Your task to perform on an android device: change the clock style Image 0: 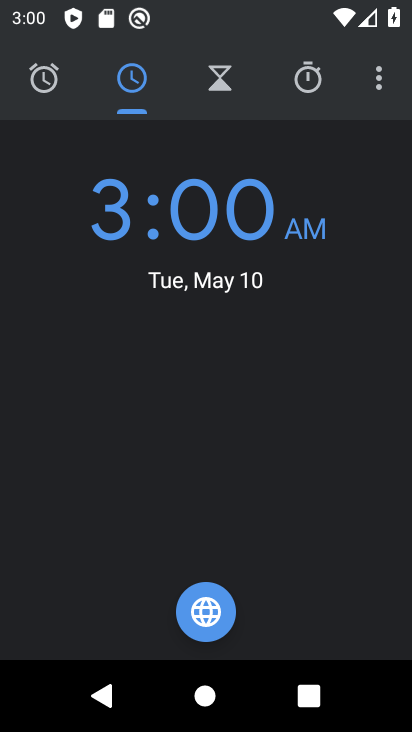
Step 0: click (380, 79)
Your task to perform on an android device: change the clock style Image 1: 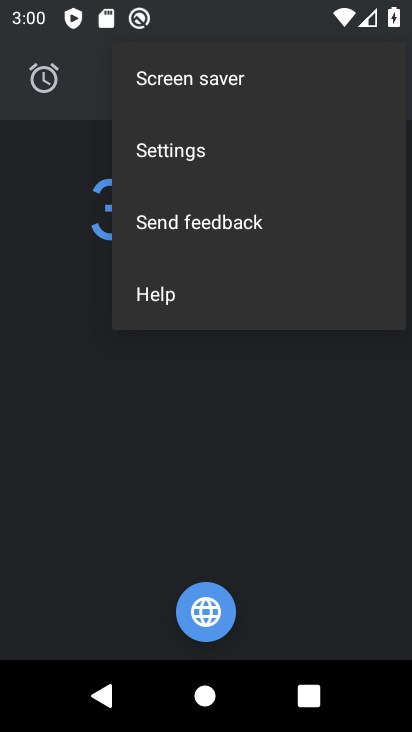
Step 1: click (182, 153)
Your task to perform on an android device: change the clock style Image 2: 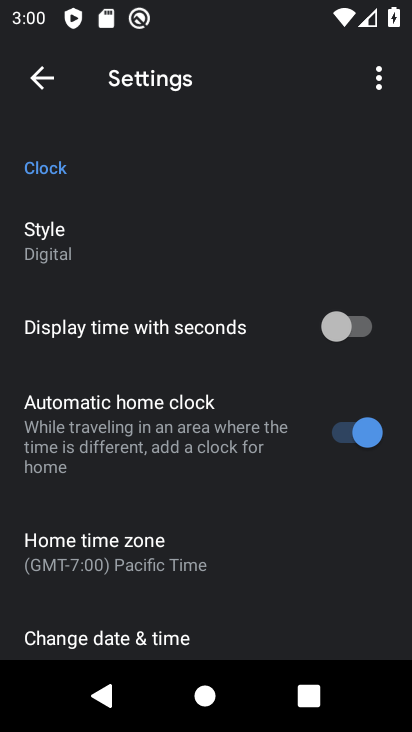
Step 2: click (45, 236)
Your task to perform on an android device: change the clock style Image 3: 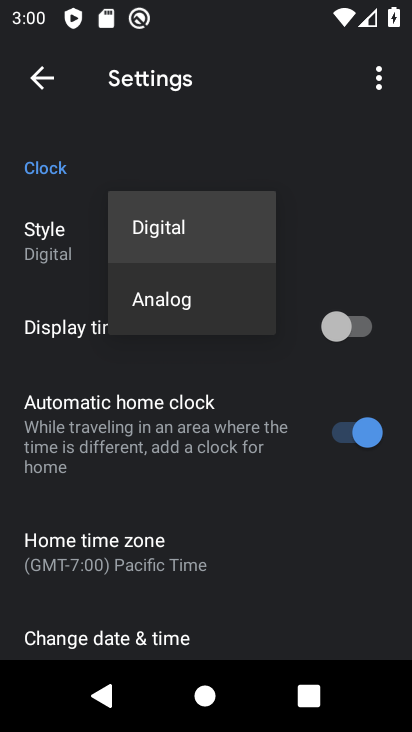
Step 3: click (201, 295)
Your task to perform on an android device: change the clock style Image 4: 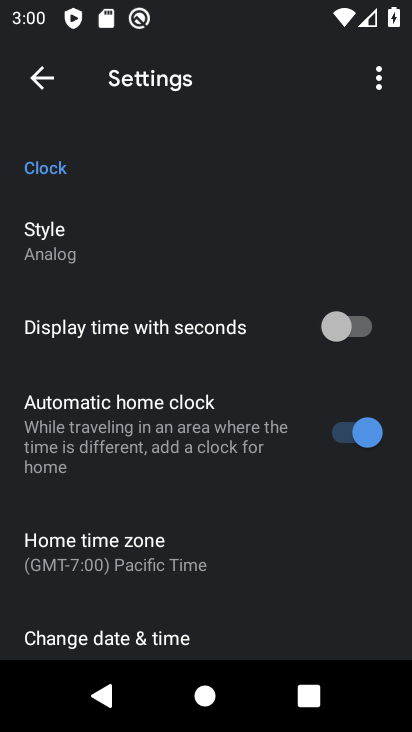
Step 4: task complete